Your task to perform on an android device: uninstall "Google Keep" Image 0: 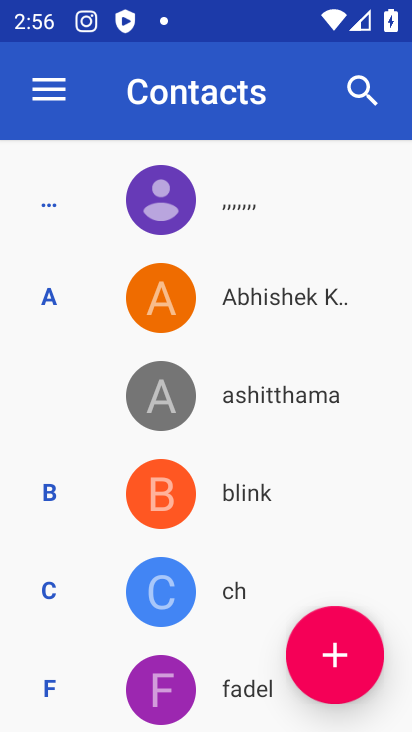
Step 0: press home button
Your task to perform on an android device: uninstall "Google Keep" Image 1: 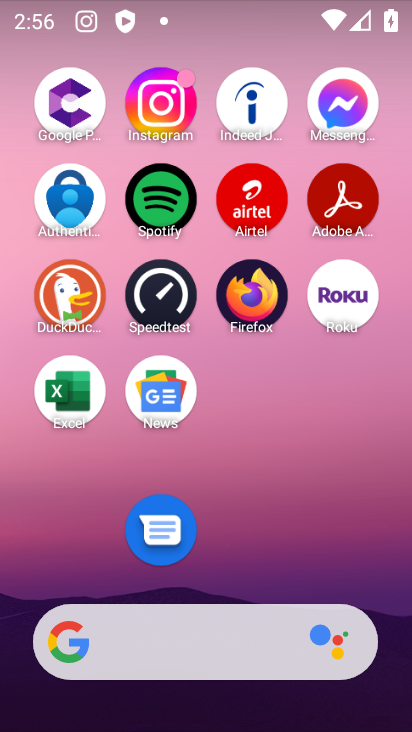
Step 1: drag from (216, 490) to (287, 6)
Your task to perform on an android device: uninstall "Google Keep" Image 2: 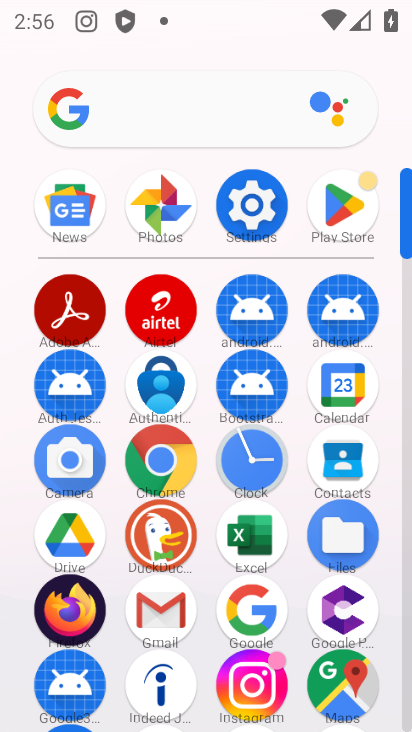
Step 2: click (329, 214)
Your task to perform on an android device: uninstall "Google Keep" Image 3: 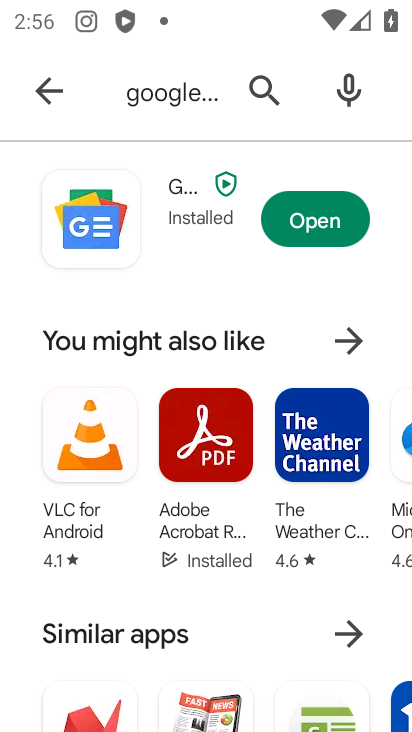
Step 3: click (180, 107)
Your task to perform on an android device: uninstall "Google Keep" Image 4: 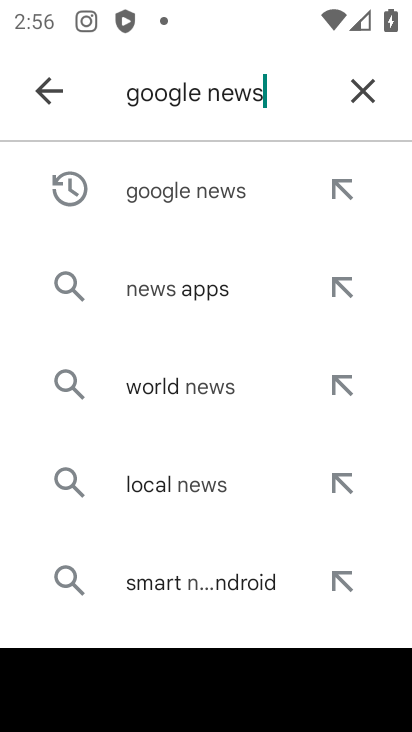
Step 4: click (241, 93)
Your task to perform on an android device: uninstall "Google Keep" Image 5: 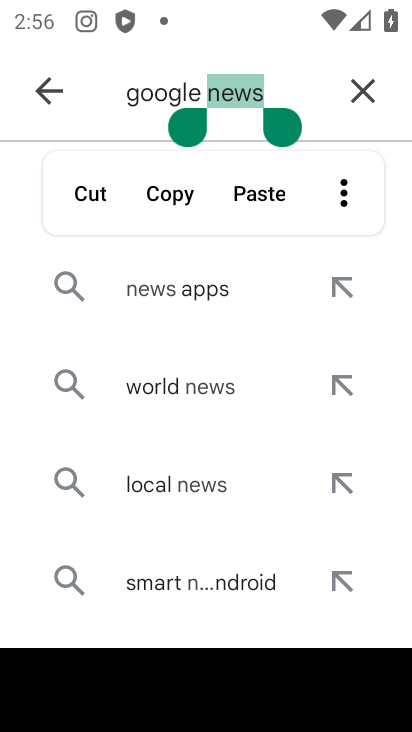
Step 5: type "keep"
Your task to perform on an android device: uninstall "Google Keep" Image 6: 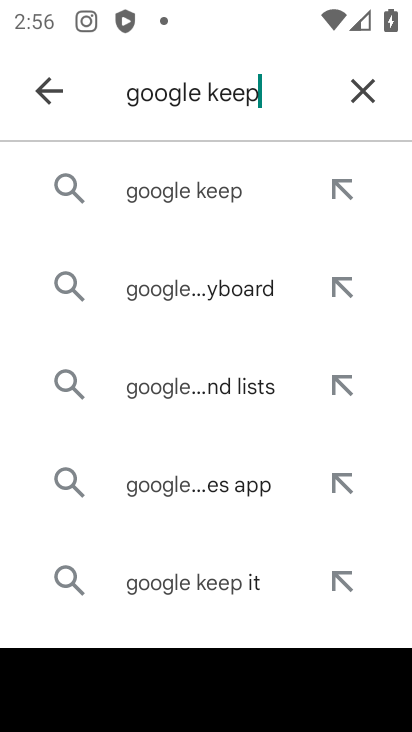
Step 6: click (196, 206)
Your task to perform on an android device: uninstall "Google Keep" Image 7: 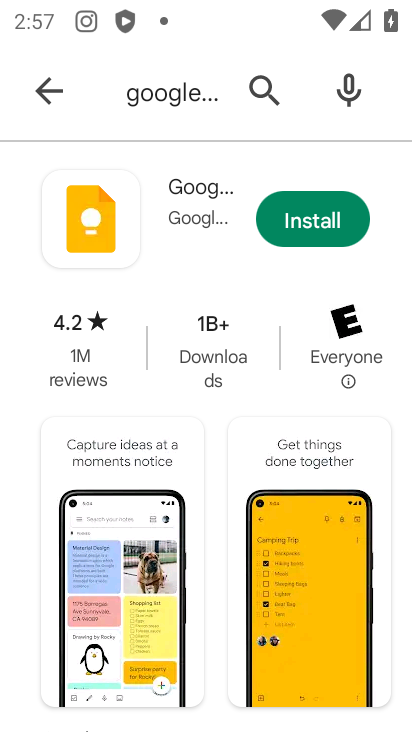
Step 7: task complete